Your task to perform on an android device: Search for pizza restaurants on Maps Image 0: 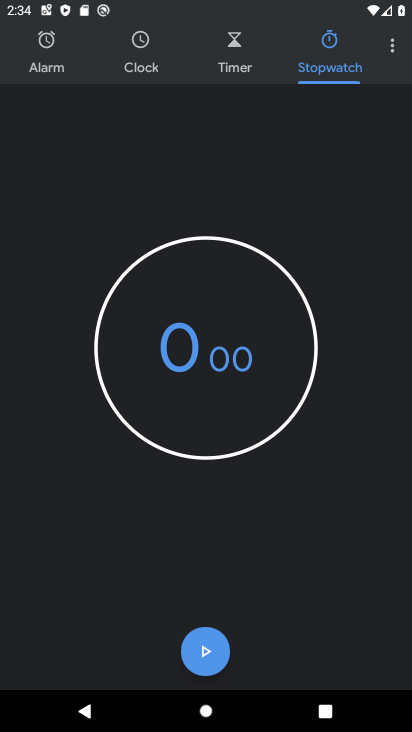
Step 0: press home button
Your task to perform on an android device: Search for pizza restaurants on Maps Image 1: 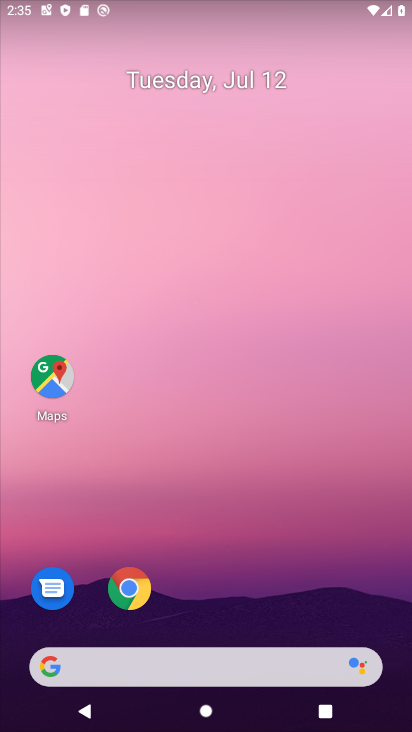
Step 1: click (51, 374)
Your task to perform on an android device: Search for pizza restaurants on Maps Image 2: 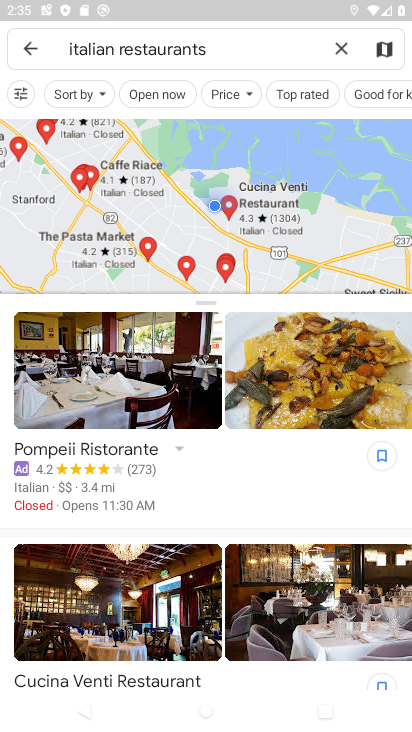
Step 2: click (341, 49)
Your task to perform on an android device: Search for pizza restaurants on Maps Image 3: 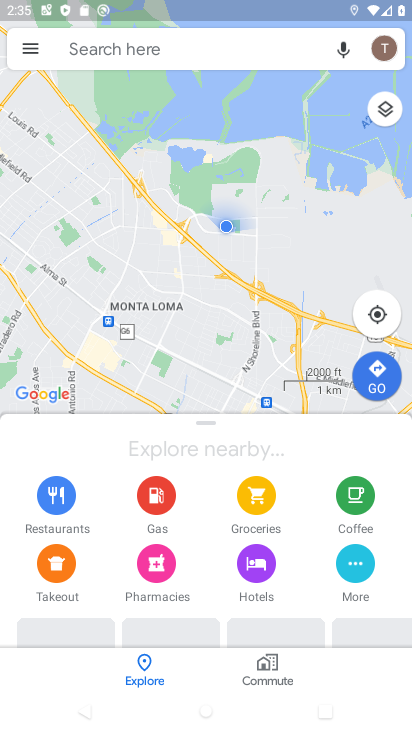
Step 3: click (247, 49)
Your task to perform on an android device: Search for pizza restaurants on Maps Image 4: 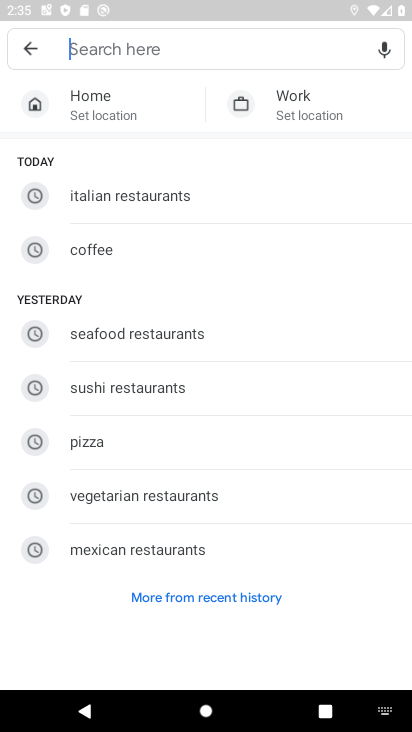
Step 4: click (197, 439)
Your task to perform on an android device: Search for pizza restaurants on Maps Image 5: 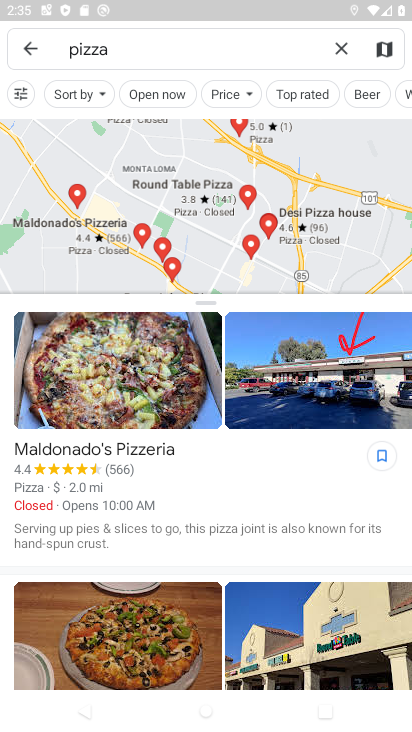
Step 5: task complete